Your task to perform on an android device: move an email to a new category in the gmail app Image 0: 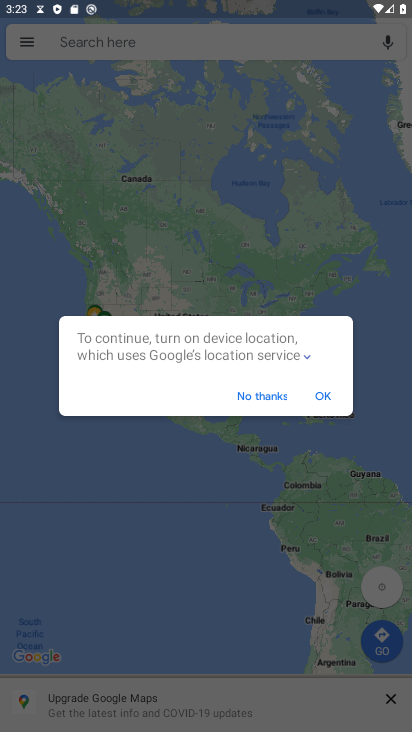
Step 0: press home button
Your task to perform on an android device: move an email to a new category in the gmail app Image 1: 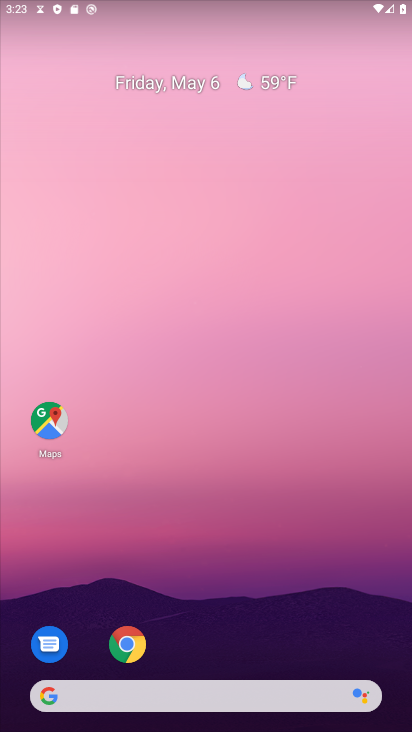
Step 1: drag from (222, 598) to (195, 0)
Your task to perform on an android device: move an email to a new category in the gmail app Image 2: 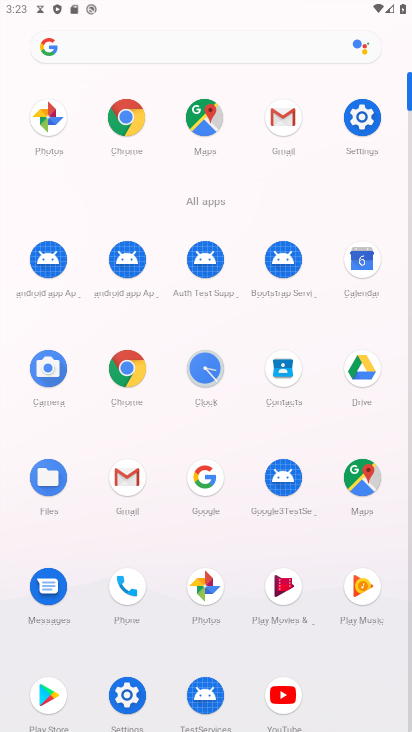
Step 2: click (278, 118)
Your task to perform on an android device: move an email to a new category in the gmail app Image 3: 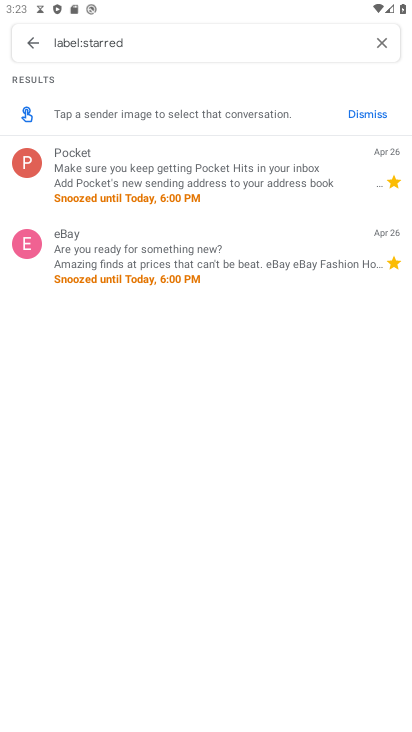
Step 3: click (381, 38)
Your task to perform on an android device: move an email to a new category in the gmail app Image 4: 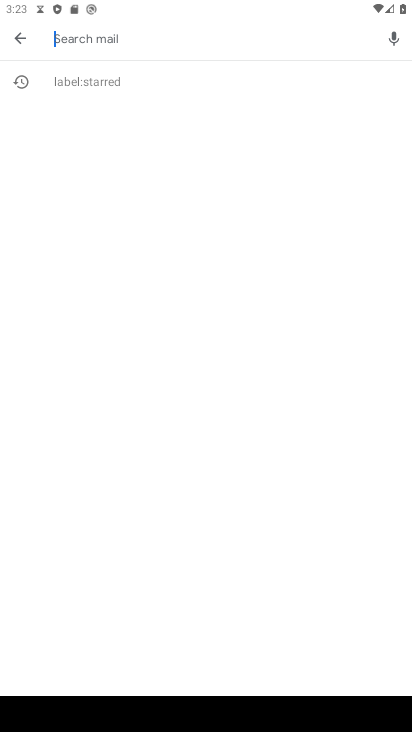
Step 4: press back button
Your task to perform on an android device: move an email to a new category in the gmail app Image 5: 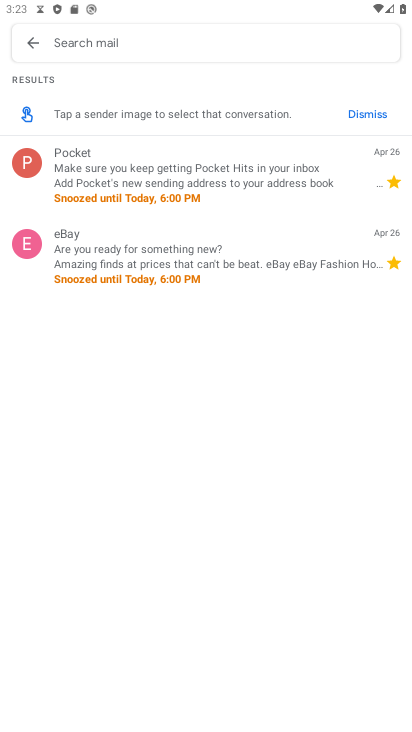
Step 5: click (203, 178)
Your task to perform on an android device: move an email to a new category in the gmail app Image 6: 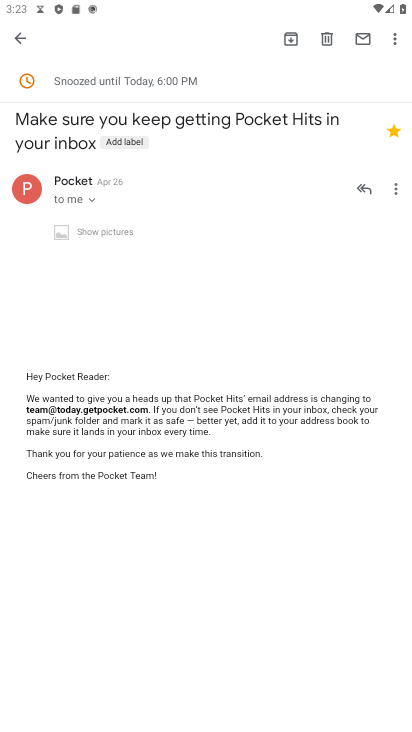
Step 6: click (399, 41)
Your task to perform on an android device: move an email to a new category in the gmail app Image 7: 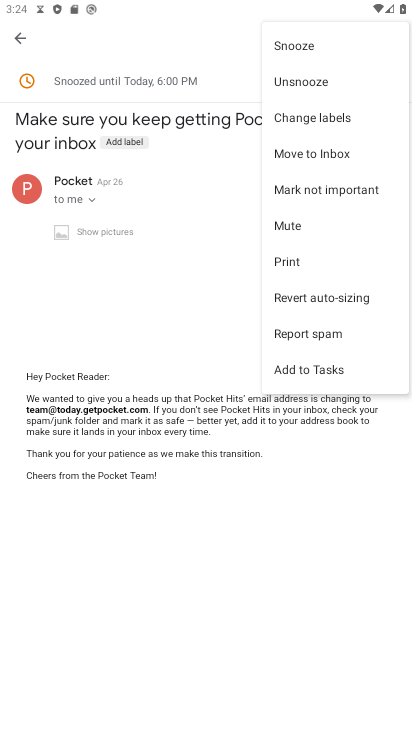
Step 7: click (339, 154)
Your task to perform on an android device: move an email to a new category in the gmail app Image 8: 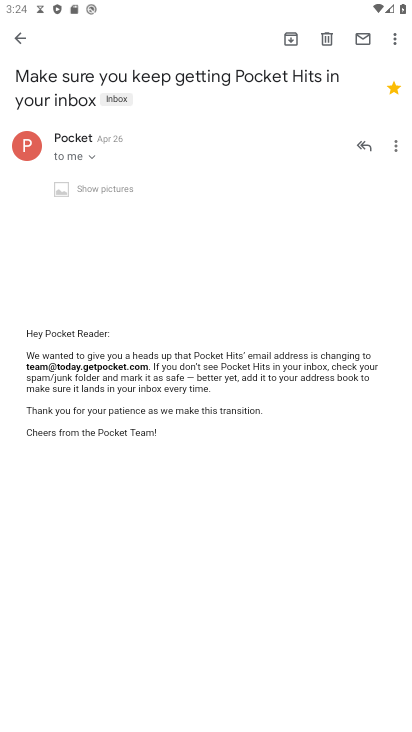
Step 8: task complete